Your task to perform on an android device: Open Wikipedia Image 0: 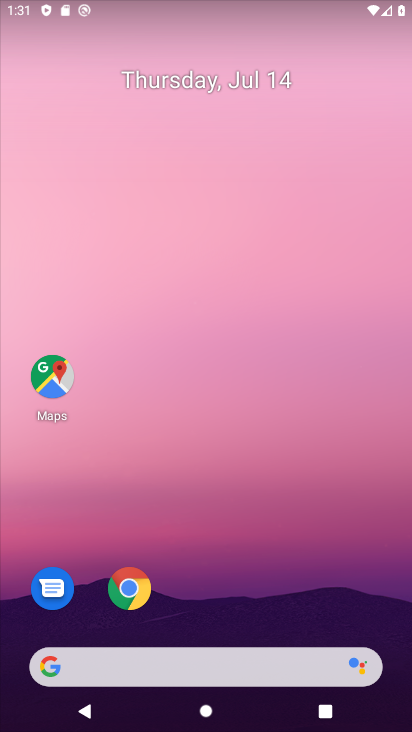
Step 0: click (144, 667)
Your task to perform on an android device: Open Wikipedia Image 1: 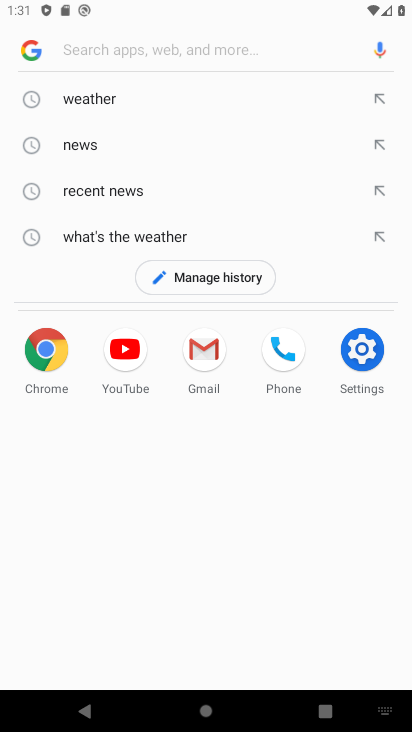
Step 1: type "wikipedia"
Your task to perform on an android device: Open Wikipedia Image 2: 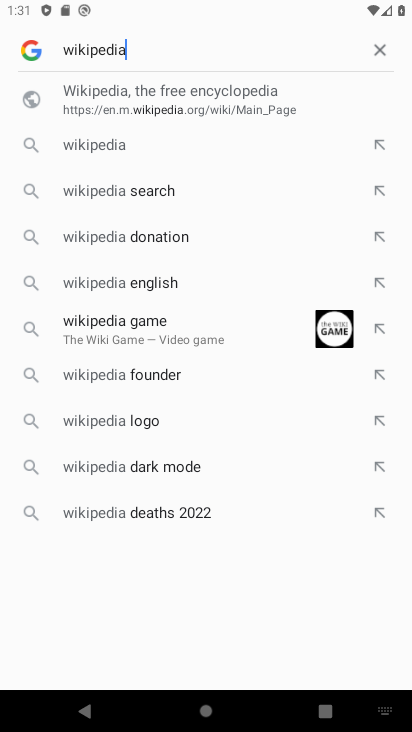
Step 2: click (165, 103)
Your task to perform on an android device: Open Wikipedia Image 3: 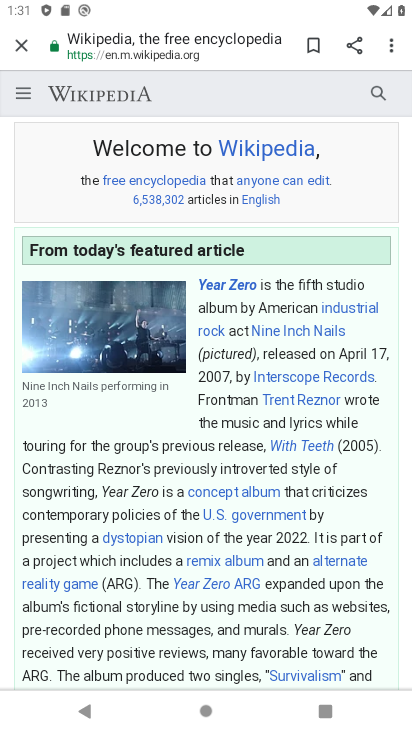
Step 3: task complete